Your task to perform on an android device: delete browsing data in the chrome app Image 0: 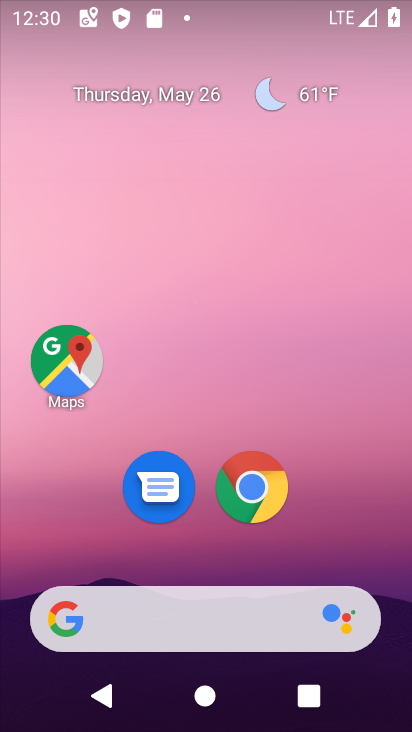
Step 0: drag from (368, 557) to (292, 249)
Your task to perform on an android device: delete browsing data in the chrome app Image 1: 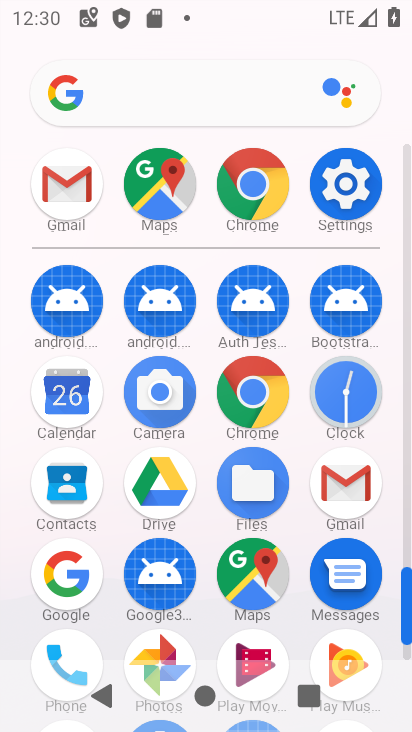
Step 1: click (251, 180)
Your task to perform on an android device: delete browsing data in the chrome app Image 2: 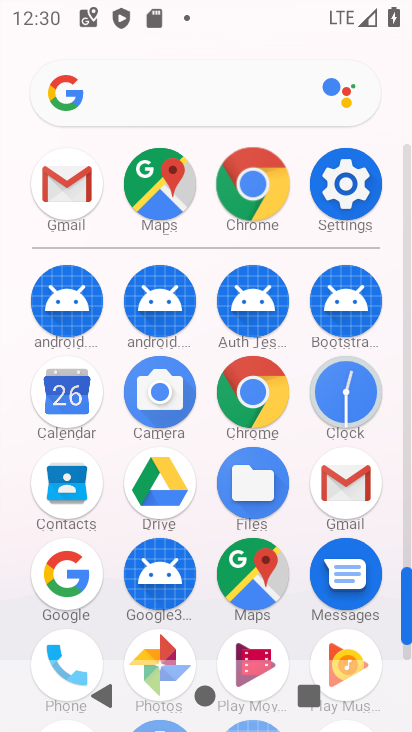
Step 2: click (251, 180)
Your task to perform on an android device: delete browsing data in the chrome app Image 3: 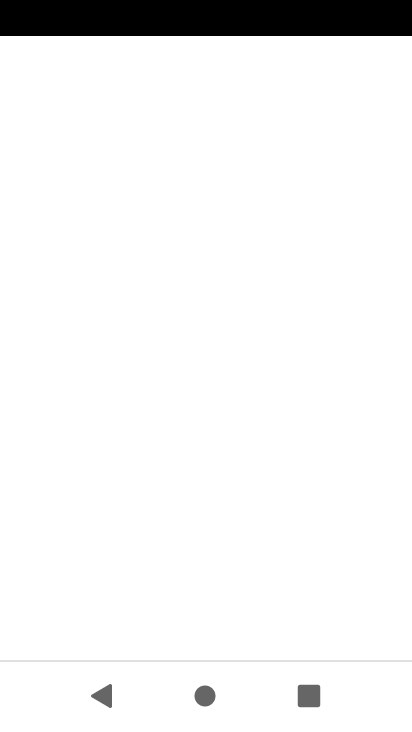
Step 3: click (251, 180)
Your task to perform on an android device: delete browsing data in the chrome app Image 4: 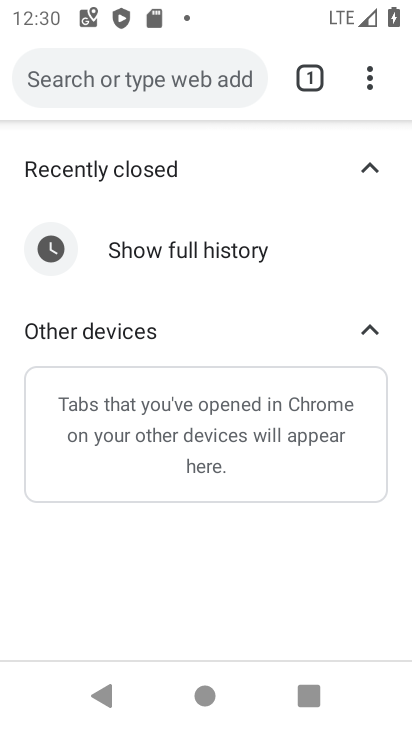
Step 4: drag from (360, 82) to (85, 431)
Your task to perform on an android device: delete browsing data in the chrome app Image 5: 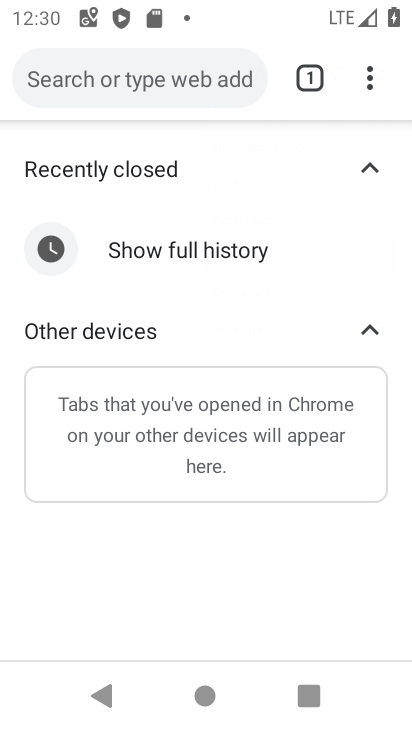
Step 5: click (86, 431)
Your task to perform on an android device: delete browsing data in the chrome app Image 6: 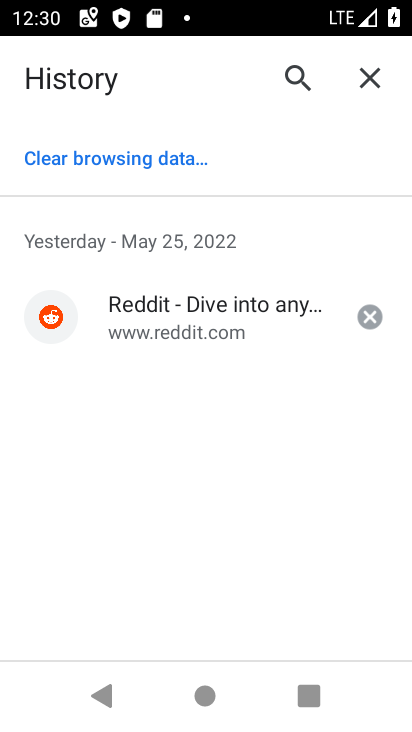
Step 6: click (141, 143)
Your task to perform on an android device: delete browsing data in the chrome app Image 7: 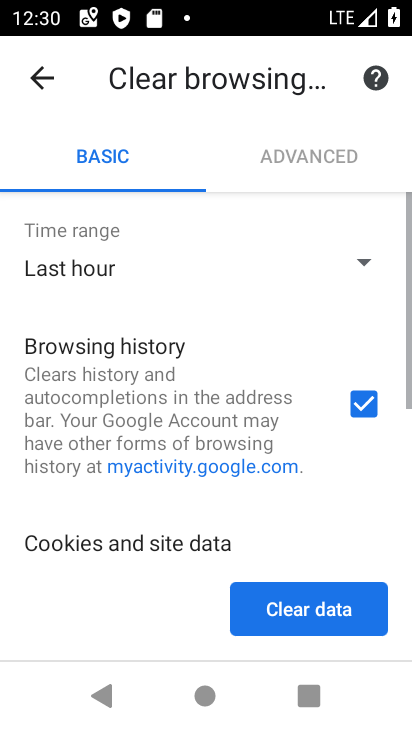
Step 7: click (327, 617)
Your task to perform on an android device: delete browsing data in the chrome app Image 8: 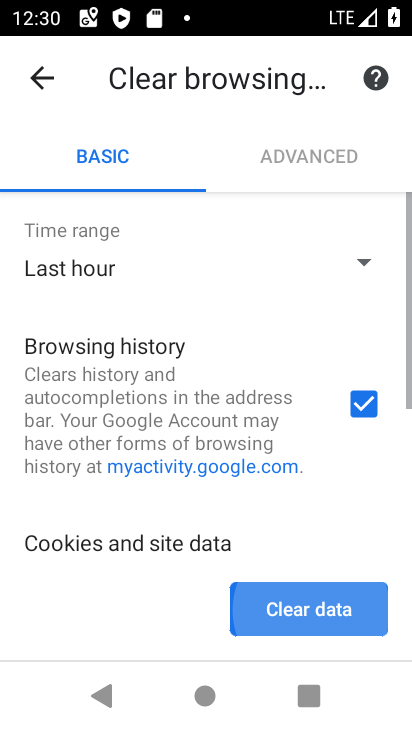
Step 8: click (326, 616)
Your task to perform on an android device: delete browsing data in the chrome app Image 9: 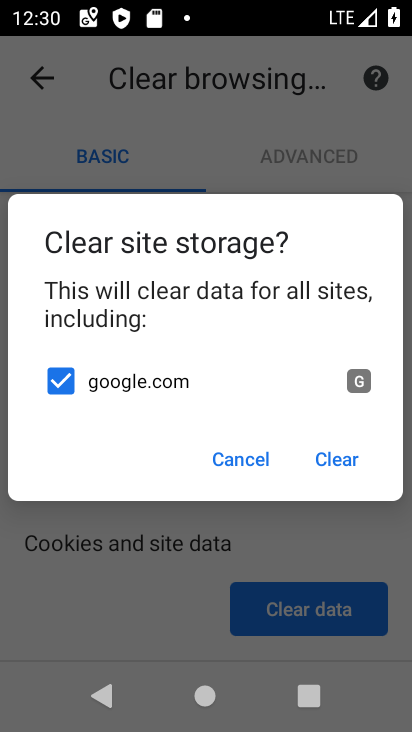
Step 9: click (318, 461)
Your task to perform on an android device: delete browsing data in the chrome app Image 10: 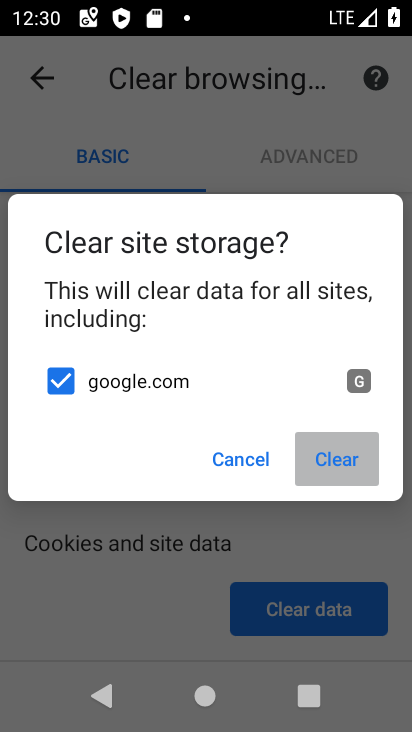
Step 10: click (319, 460)
Your task to perform on an android device: delete browsing data in the chrome app Image 11: 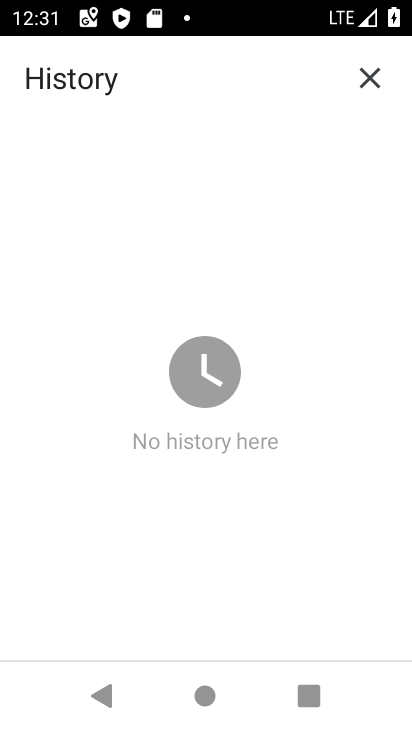
Step 11: task complete